Your task to perform on an android device: make emails show in primary in the gmail app Image 0: 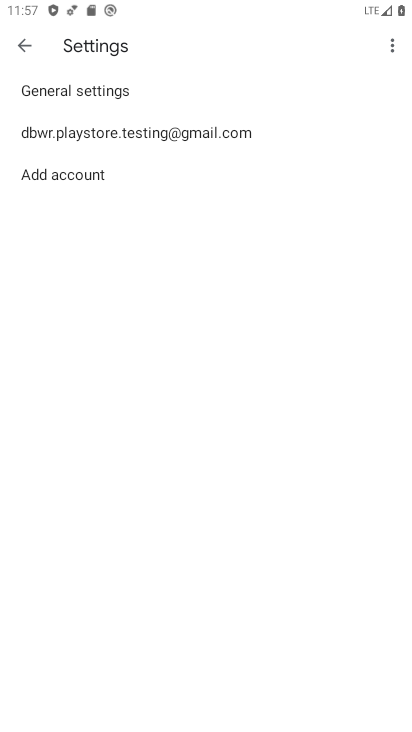
Step 0: press home button
Your task to perform on an android device: make emails show in primary in the gmail app Image 1: 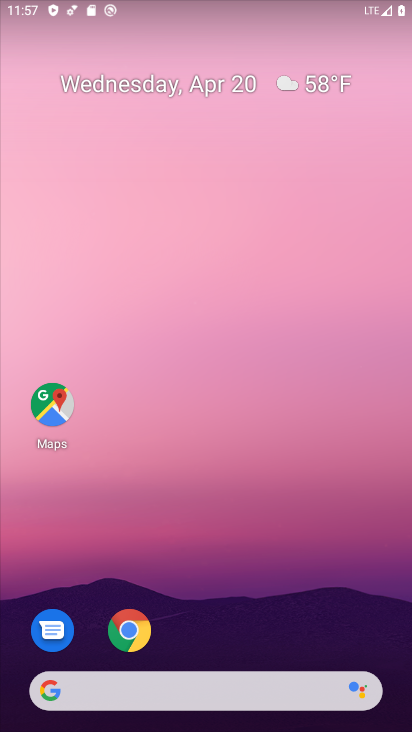
Step 1: drag from (126, 685) to (338, 131)
Your task to perform on an android device: make emails show in primary in the gmail app Image 2: 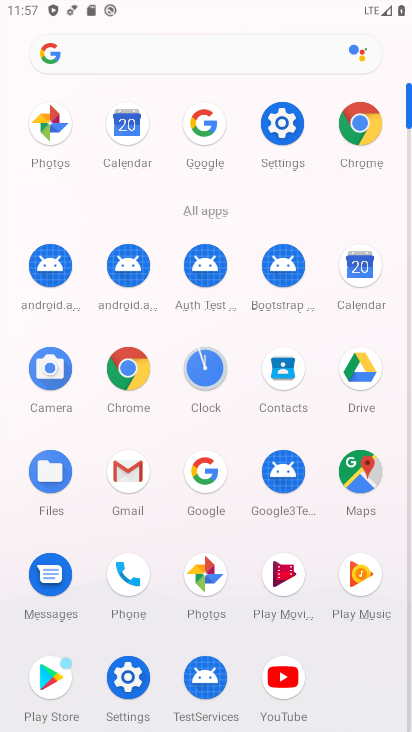
Step 2: click (127, 466)
Your task to perform on an android device: make emails show in primary in the gmail app Image 3: 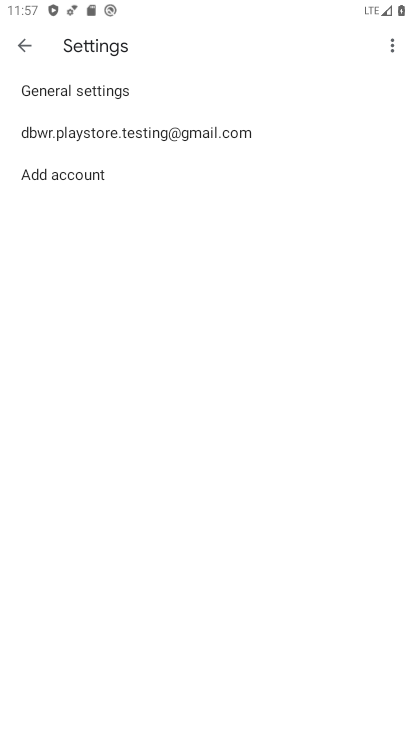
Step 3: click (151, 133)
Your task to perform on an android device: make emails show in primary in the gmail app Image 4: 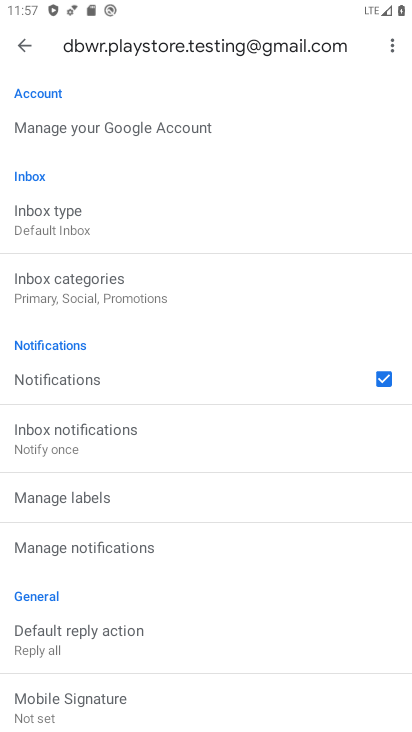
Step 4: click (63, 282)
Your task to perform on an android device: make emails show in primary in the gmail app Image 5: 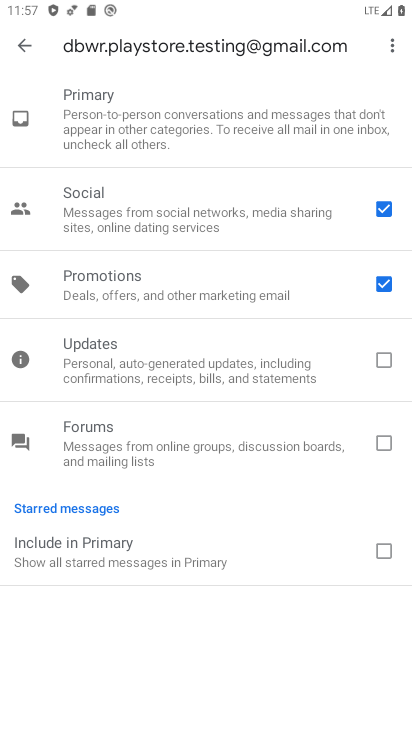
Step 5: click (384, 206)
Your task to perform on an android device: make emails show in primary in the gmail app Image 6: 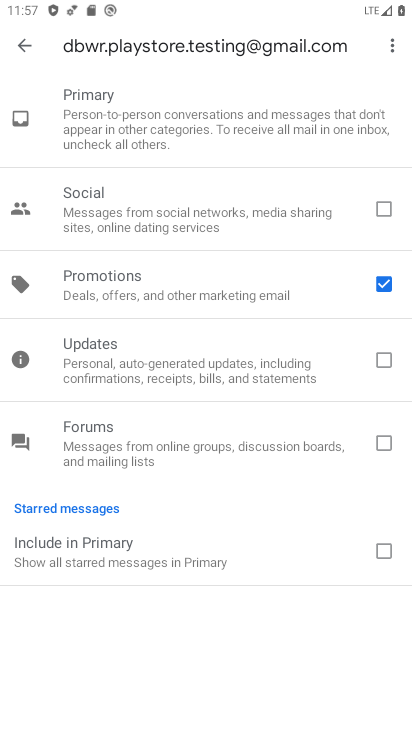
Step 6: click (382, 280)
Your task to perform on an android device: make emails show in primary in the gmail app Image 7: 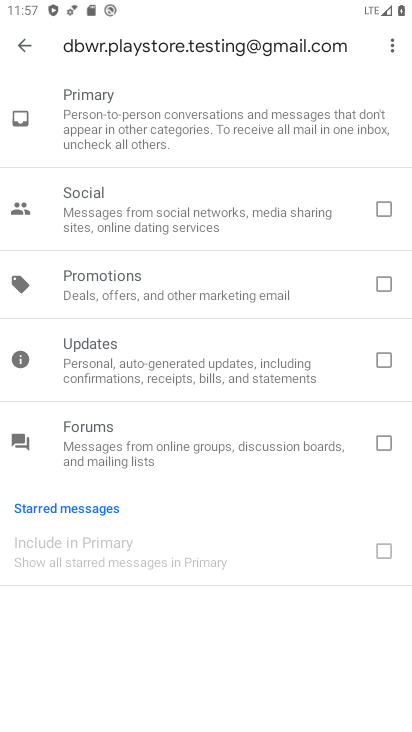
Step 7: click (30, 46)
Your task to perform on an android device: make emails show in primary in the gmail app Image 8: 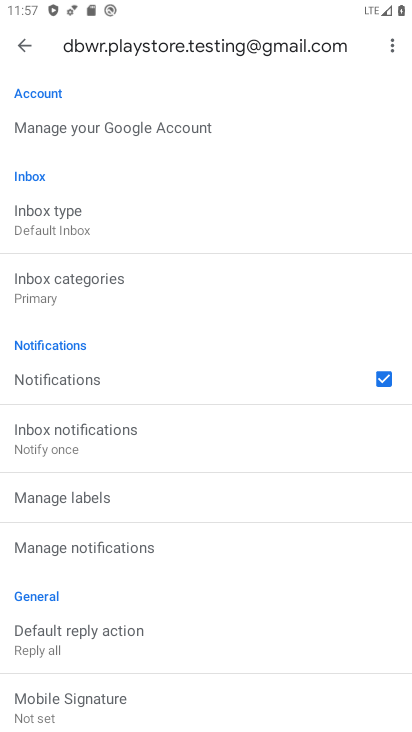
Step 8: task complete